Your task to perform on an android device: open app "Upside-Cash back on gas & food" (install if not already installed) Image 0: 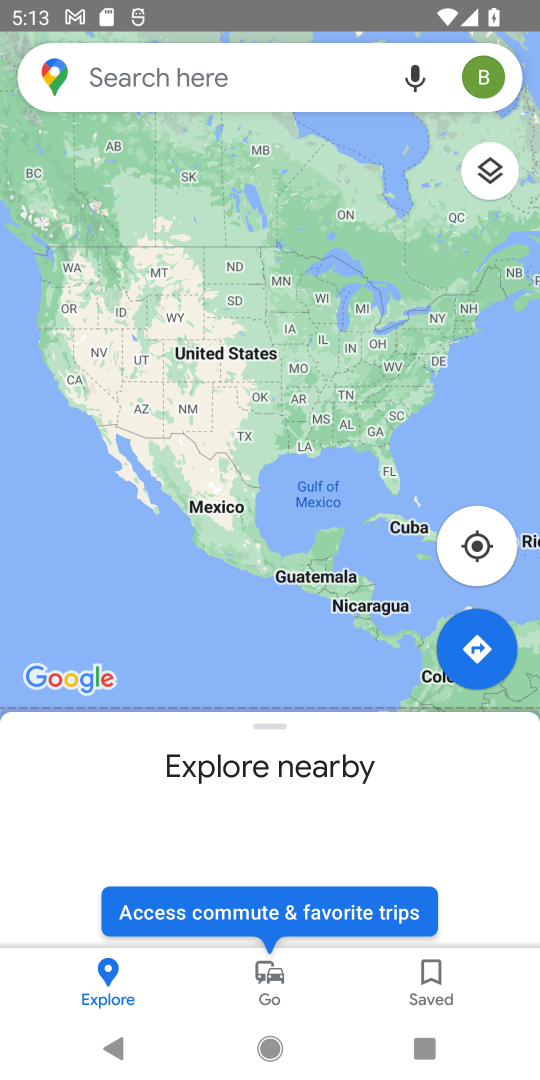
Step 0: press back button
Your task to perform on an android device: open app "Upside-Cash back on gas & food" (install if not already installed) Image 1: 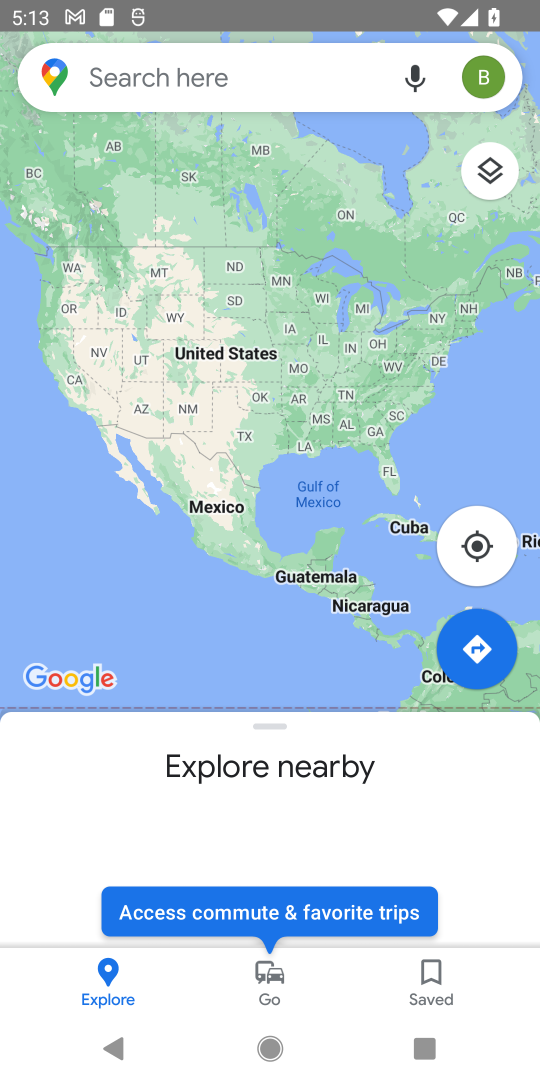
Step 1: press back button
Your task to perform on an android device: open app "Upside-Cash back on gas & food" (install if not already installed) Image 2: 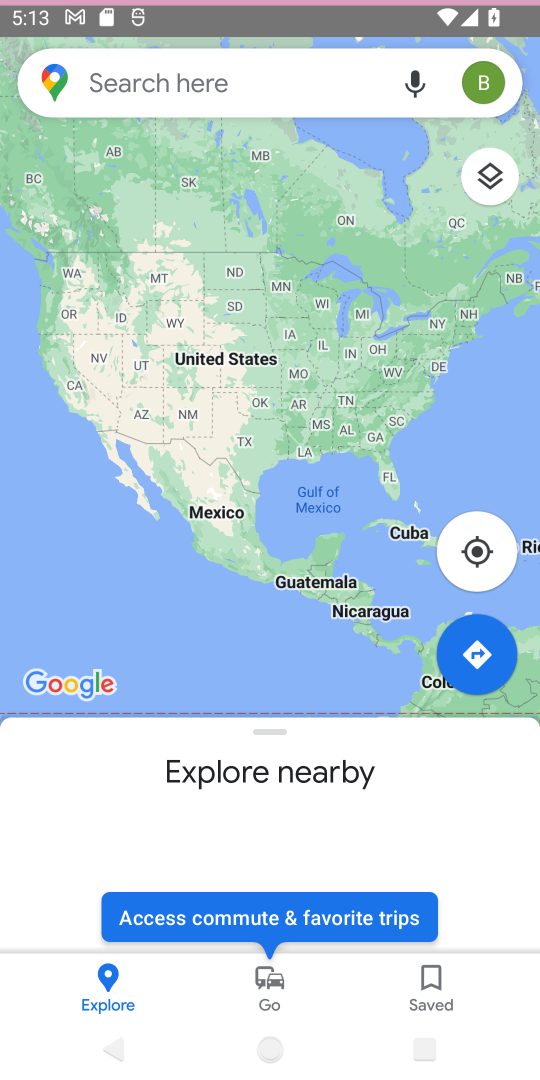
Step 2: press back button
Your task to perform on an android device: open app "Upside-Cash back on gas & food" (install if not already installed) Image 3: 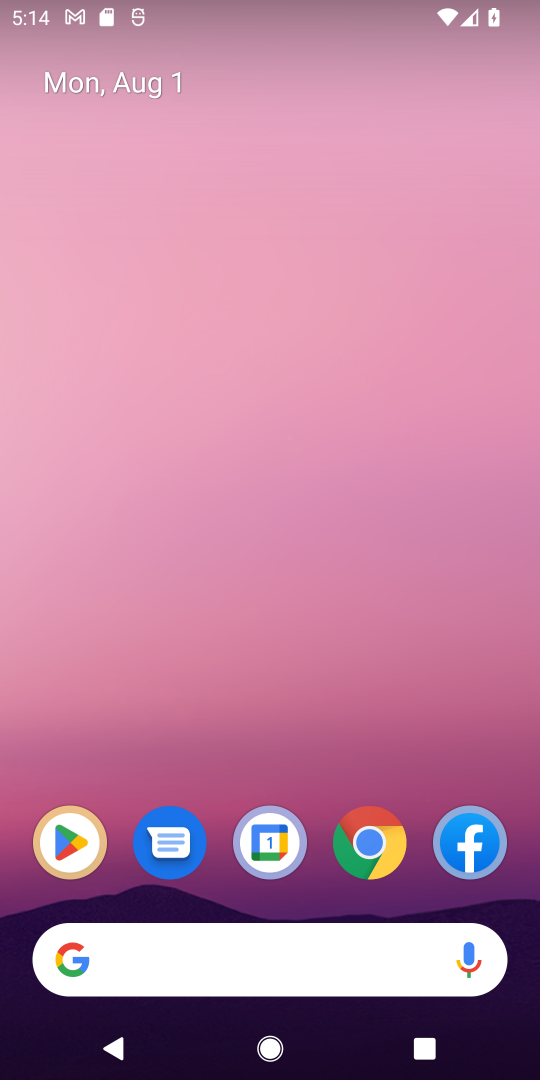
Step 3: drag from (327, 679) to (246, 378)
Your task to perform on an android device: open app "Upside-Cash back on gas & food" (install if not already installed) Image 4: 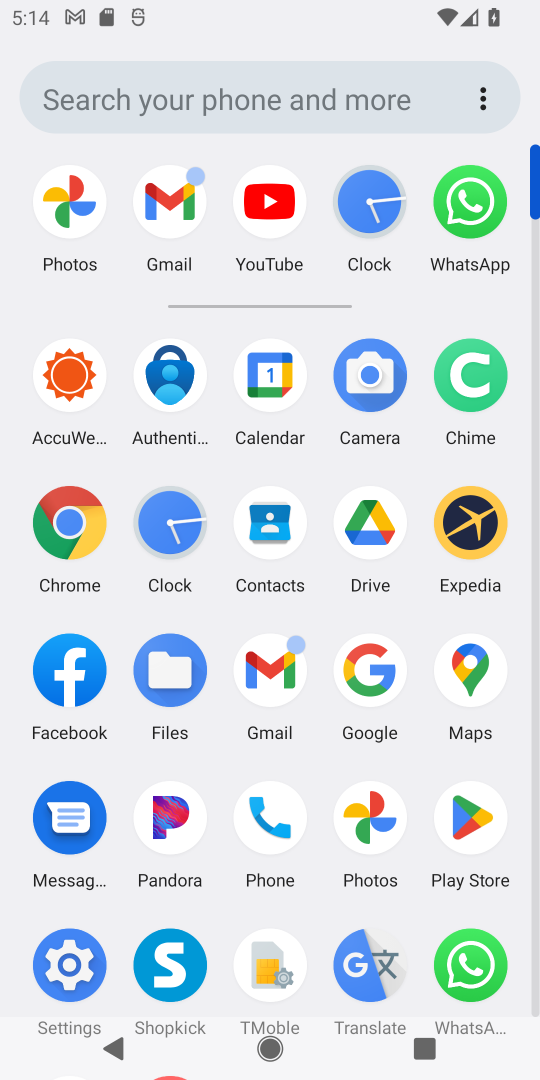
Step 4: click (420, 814)
Your task to perform on an android device: open app "Upside-Cash back on gas & food" (install if not already installed) Image 5: 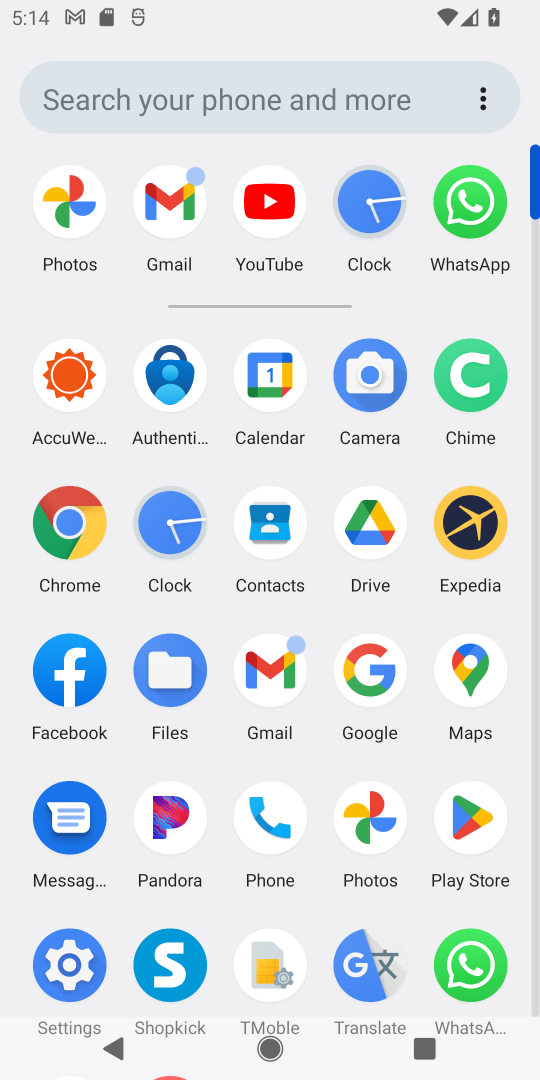
Step 5: click (464, 818)
Your task to perform on an android device: open app "Upside-Cash back on gas & food" (install if not already installed) Image 6: 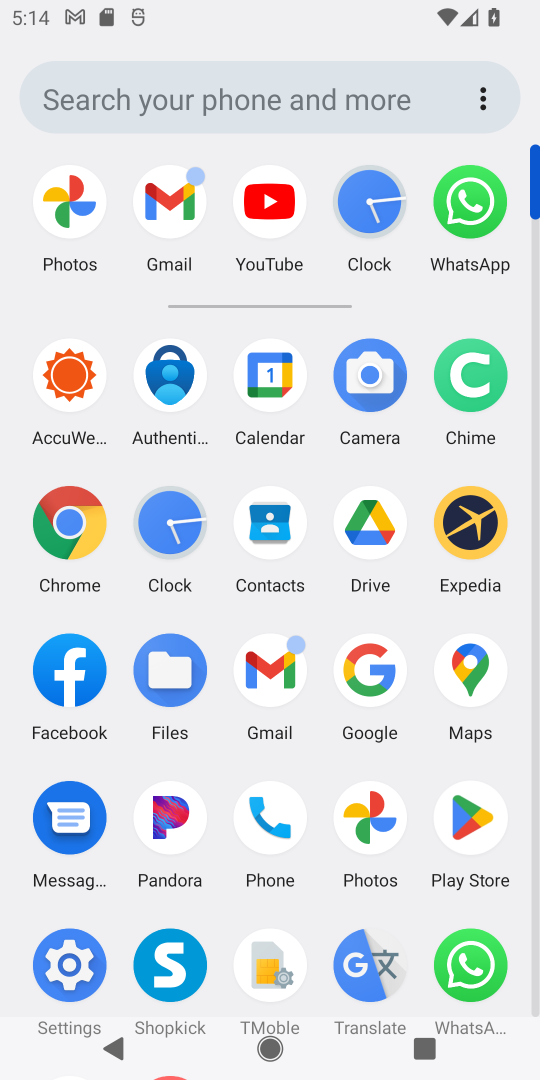
Step 6: click (468, 818)
Your task to perform on an android device: open app "Upside-Cash back on gas & food" (install if not already installed) Image 7: 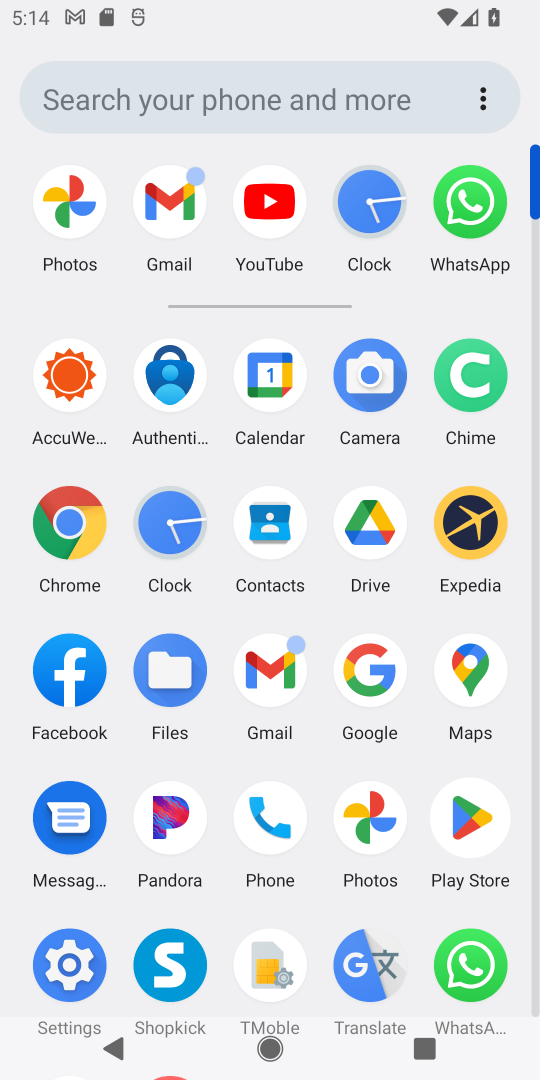
Step 7: click (469, 820)
Your task to perform on an android device: open app "Upside-Cash back on gas & food" (install if not already installed) Image 8: 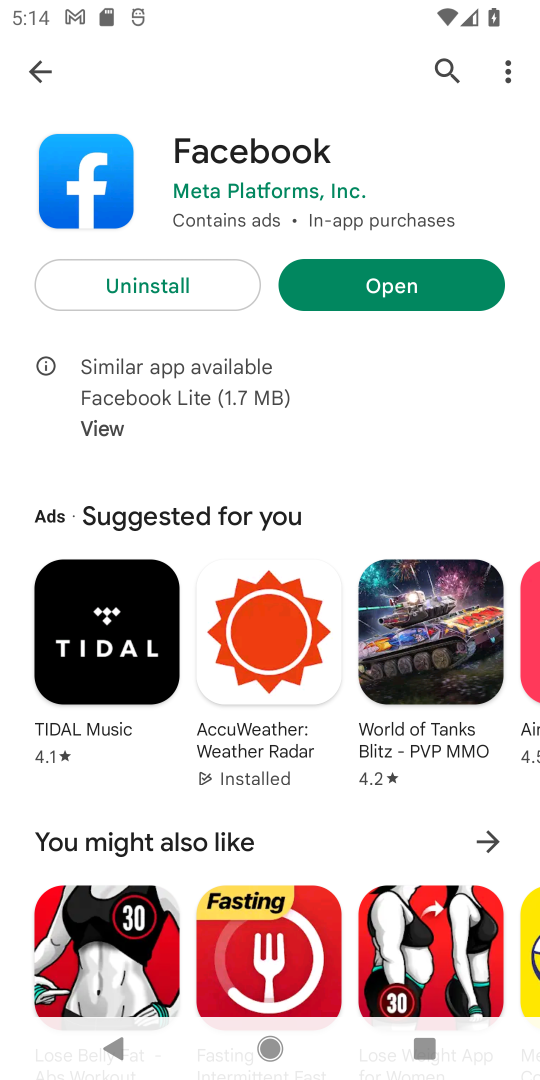
Step 8: click (48, 55)
Your task to perform on an android device: open app "Upside-Cash back on gas & food" (install if not already installed) Image 9: 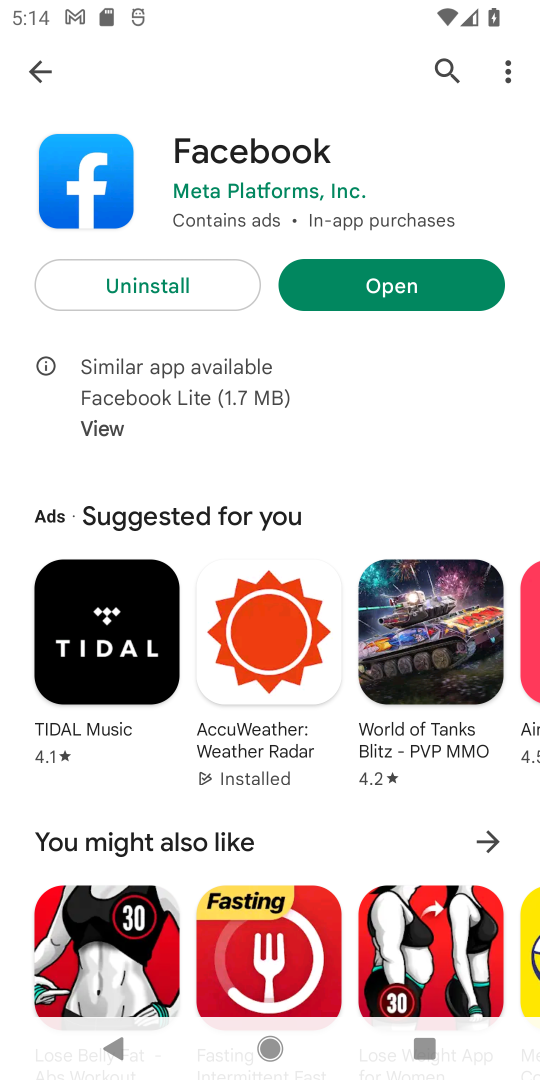
Step 9: click (41, 67)
Your task to perform on an android device: open app "Upside-Cash back on gas & food" (install if not already installed) Image 10: 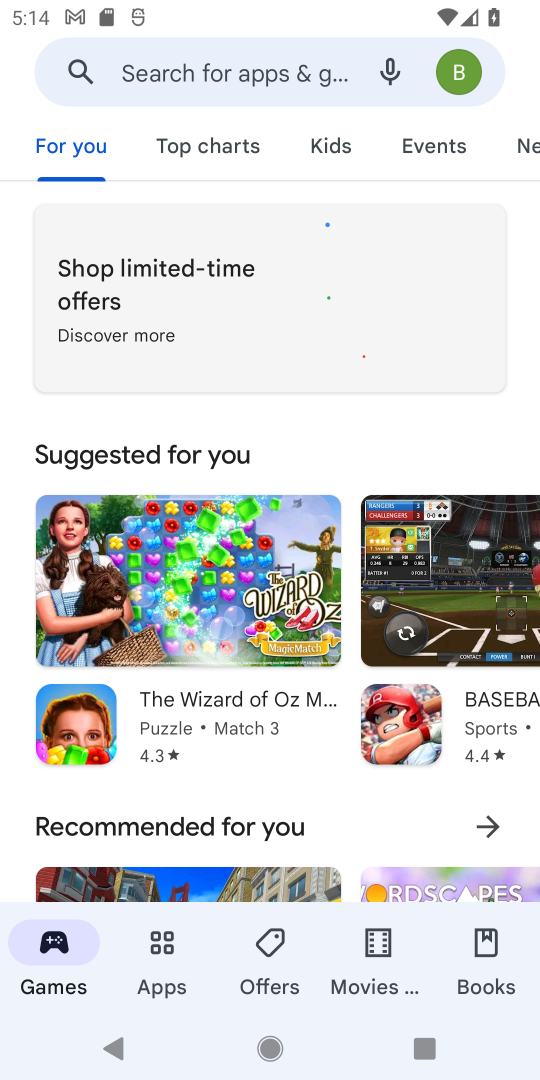
Step 10: click (145, 74)
Your task to perform on an android device: open app "Upside-Cash back on gas & food" (install if not already installed) Image 11: 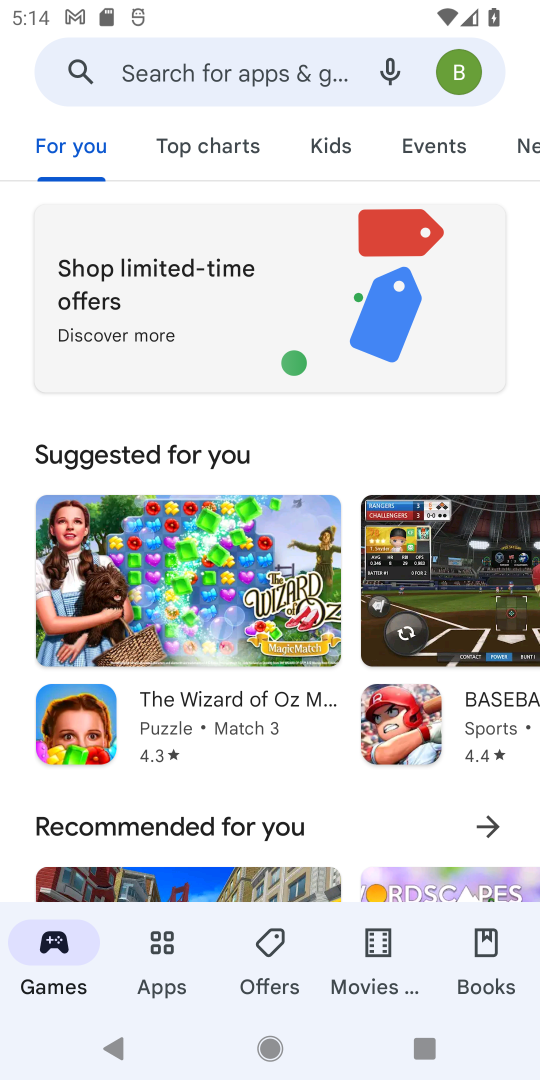
Step 11: click (155, 78)
Your task to perform on an android device: open app "Upside-Cash back on gas & food" (install if not already installed) Image 12: 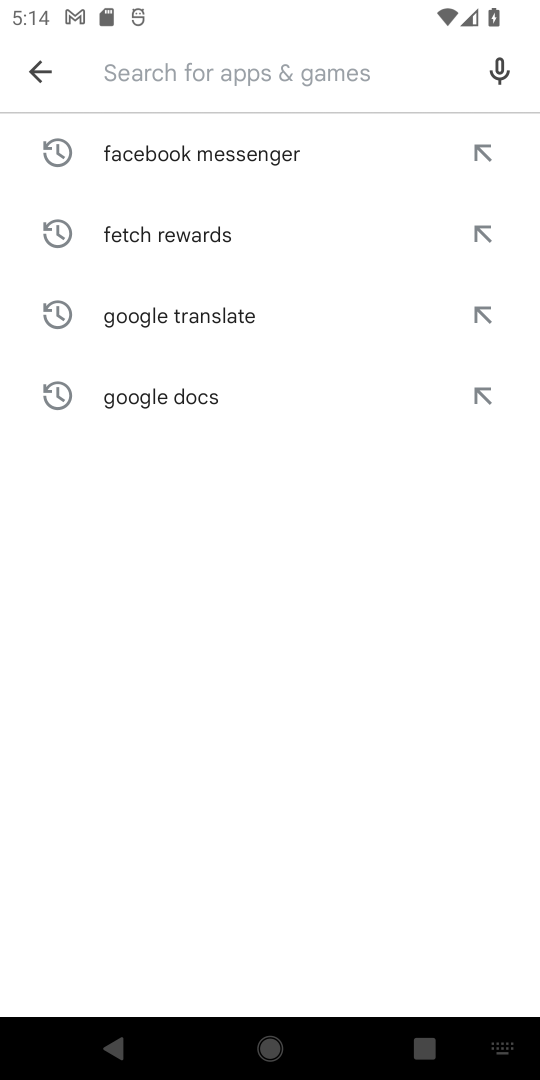
Step 12: type "Upside-Cash back on gas & food"
Your task to perform on an android device: open app "Upside-Cash back on gas & food" (install if not already installed) Image 13: 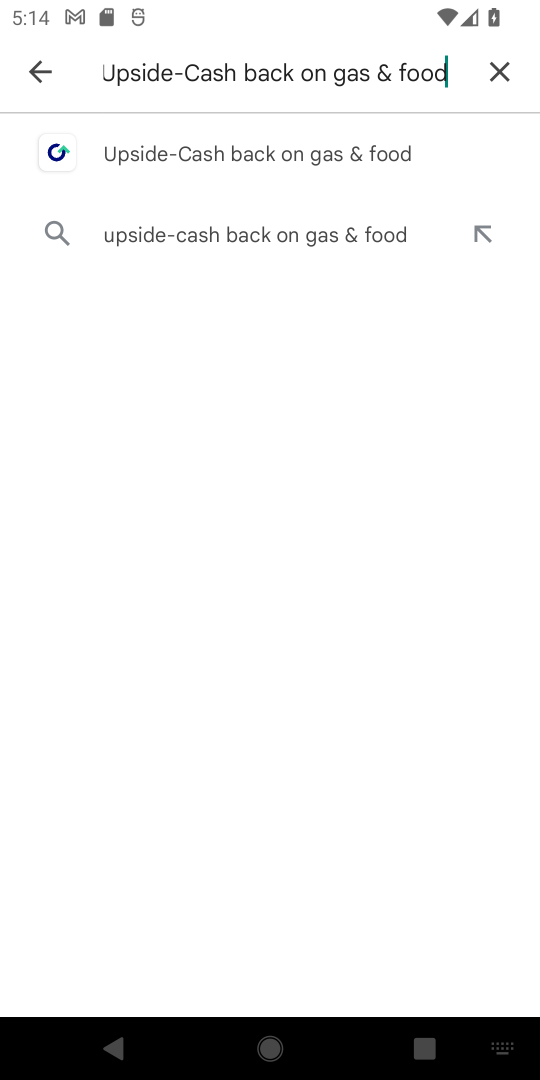
Step 13: click (473, 235)
Your task to perform on an android device: open app "Upside-Cash back on gas & food" (install if not already installed) Image 14: 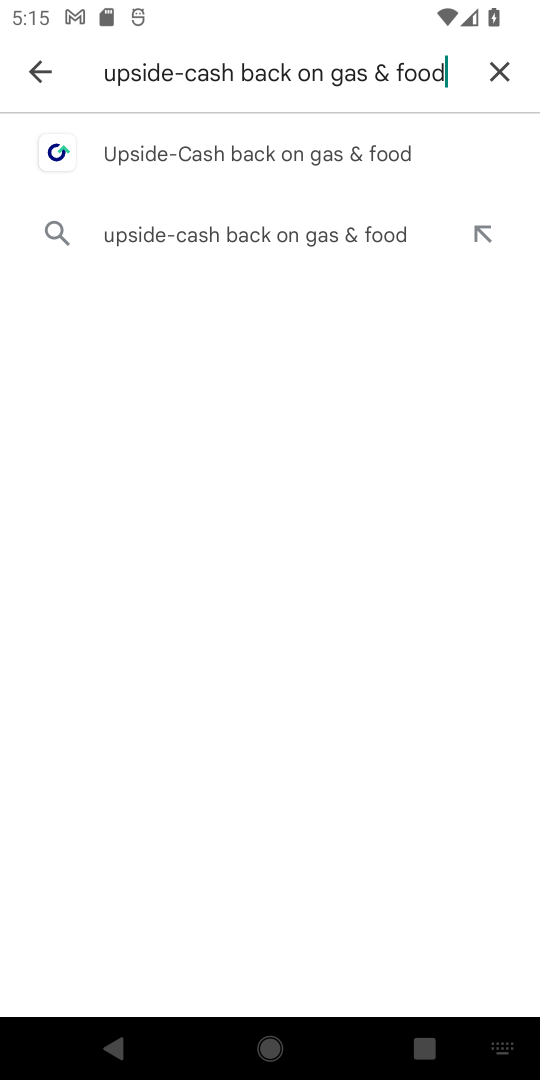
Step 14: click (473, 235)
Your task to perform on an android device: open app "Upside-Cash back on gas & food" (install if not already installed) Image 15: 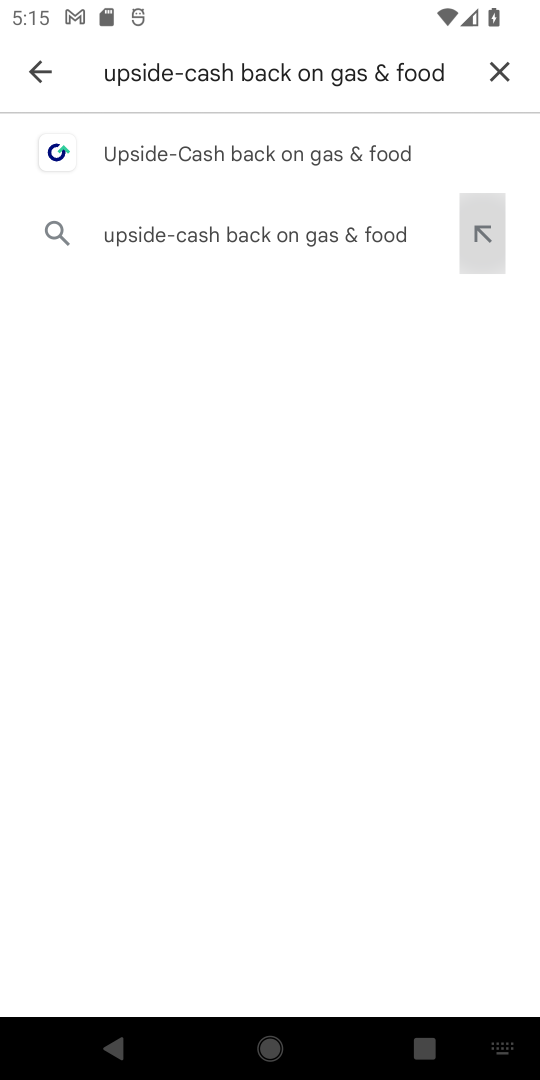
Step 15: click (473, 235)
Your task to perform on an android device: open app "Upside-Cash back on gas & food" (install if not already installed) Image 16: 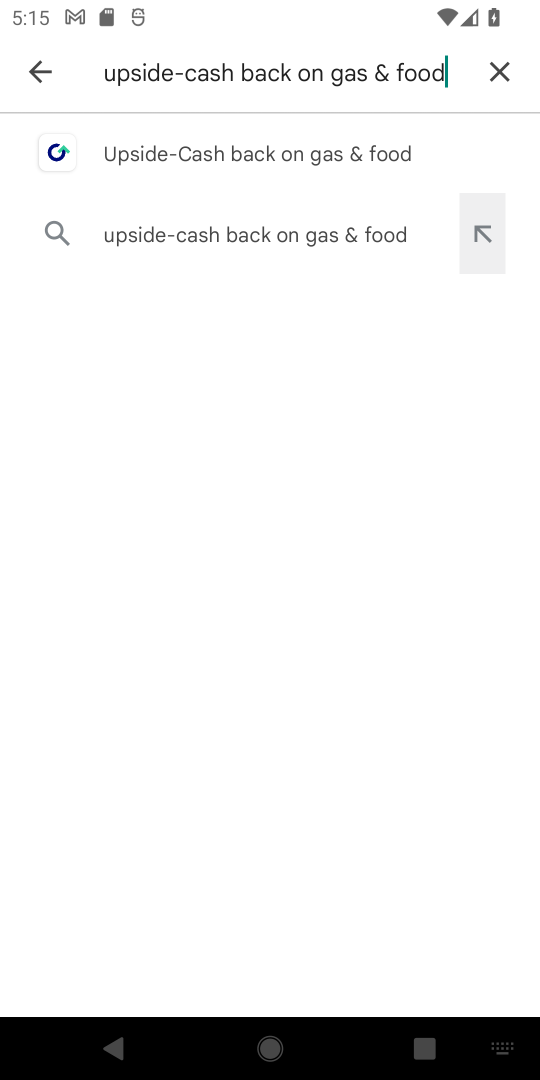
Step 16: click (473, 235)
Your task to perform on an android device: open app "Upside-Cash back on gas & food" (install if not already installed) Image 17: 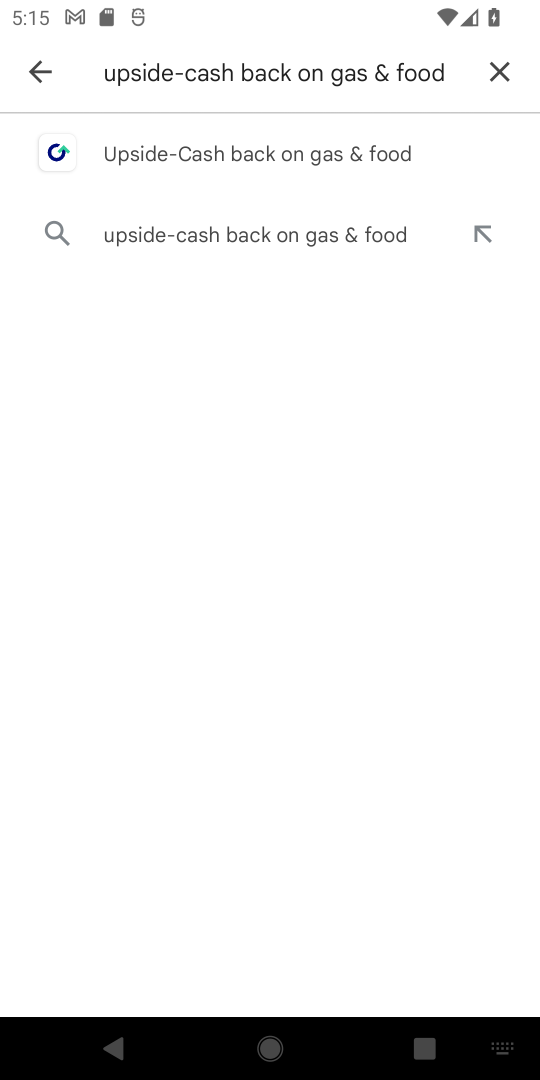
Step 17: click (200, 238)
Your task to perform on an android device: open app "Upside-Cash back on gas & food" (install if not already installed) Image 18: 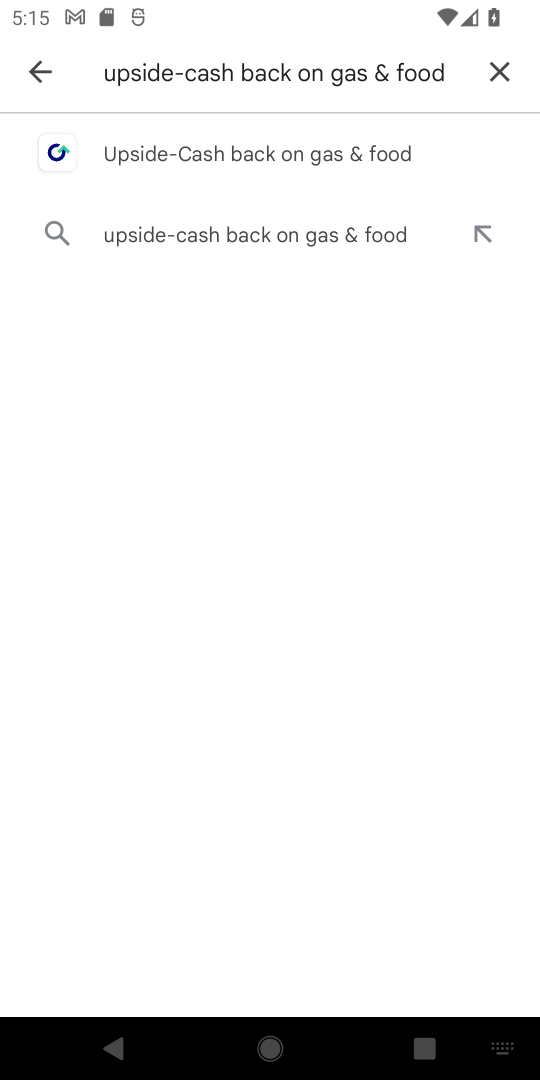
Step 18: click (200, 238)
Your task to perform on an android device: open app "Upside-Cash back on gas & food" (install if not already installed) Image 19: 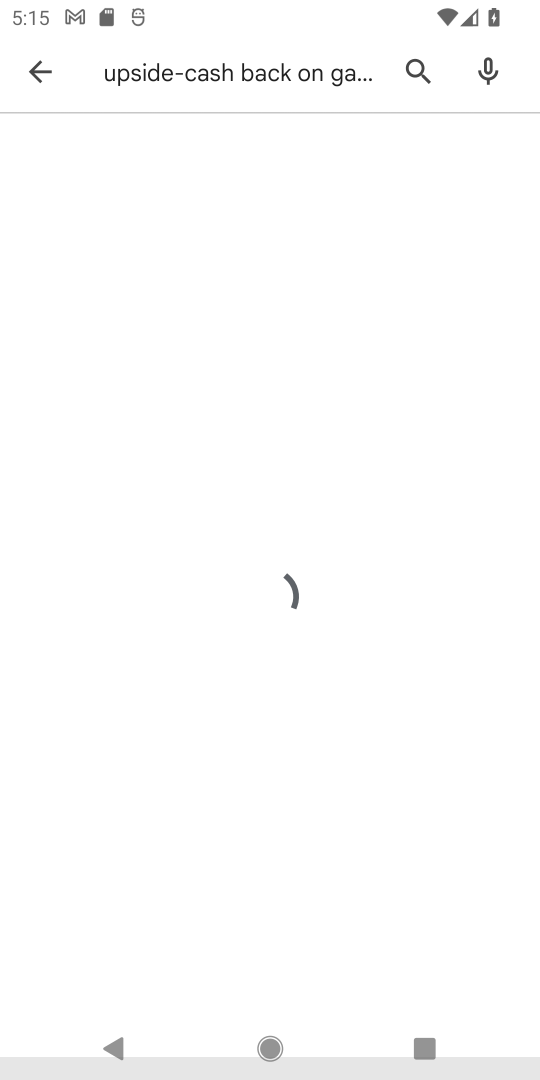
Step 19: click (200, 238)
Your task to perform on an android device: open app "Upside-Cash back on gas & food" (install if not already installed) Image 20: 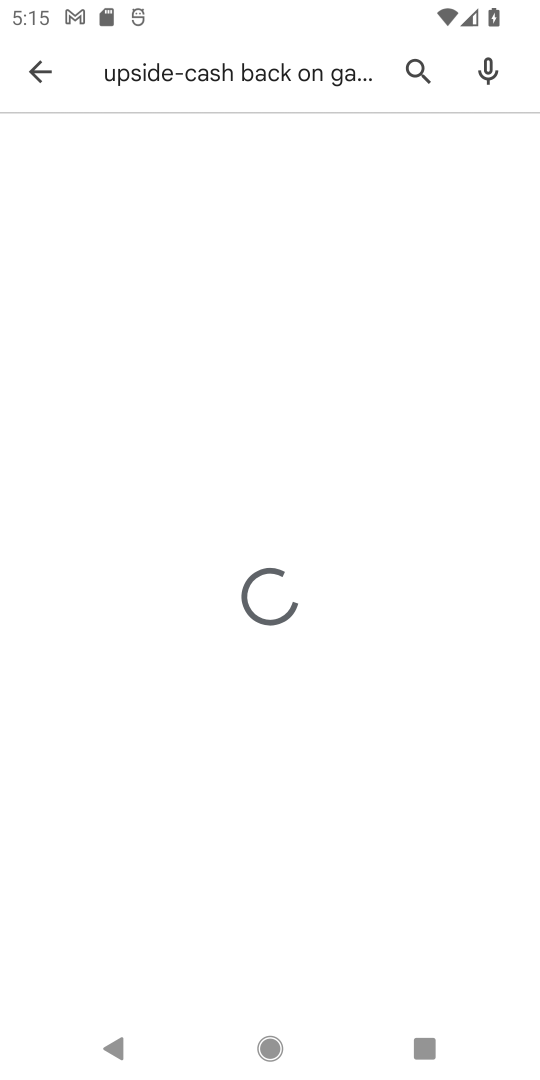
Step 20: click (200, 238)
Your task to perform on an android device: open app "Upside-Cash back on gas & food" (install if not already installed) Image 21: 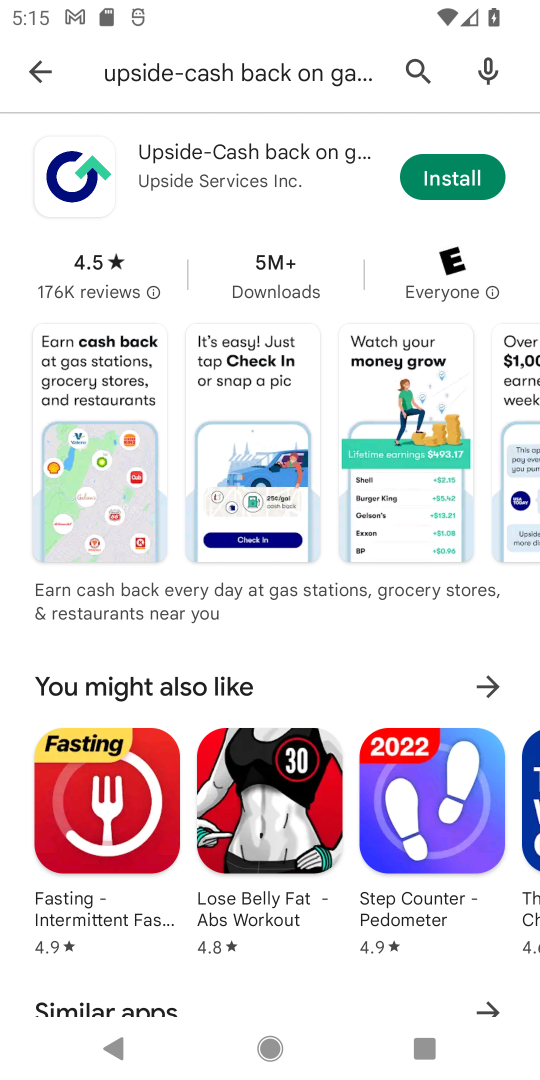
Step 21: click (441, 175)
Your task to perform on an android device: open app "Upside-Cash back on gas & food" (install if not already installed) Image 22: 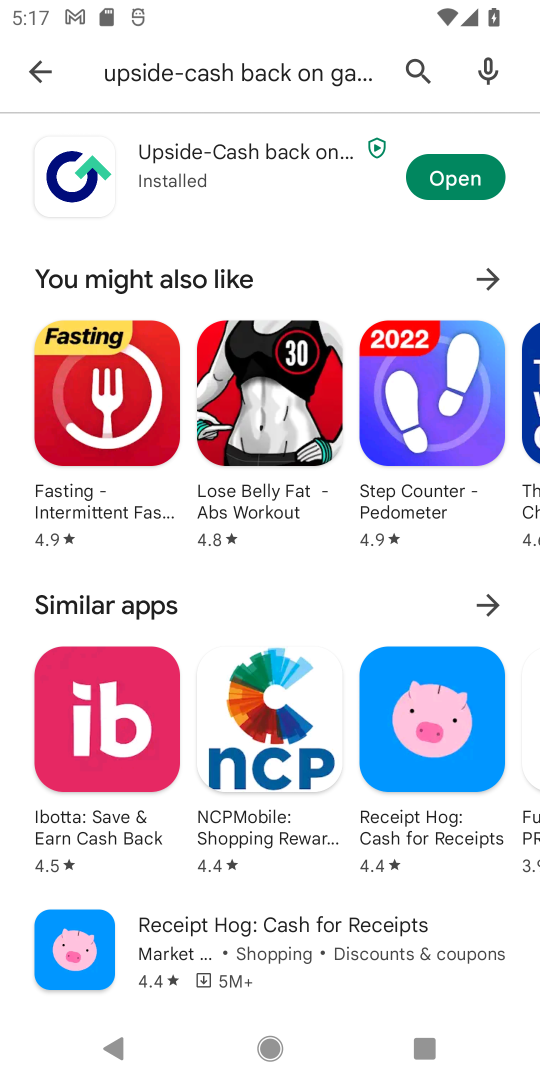
Step 22: click (429, 167)
Your task to perform on an android device: open app "Upside-Cash back on gas & food" (install if not already installed) Image 23: 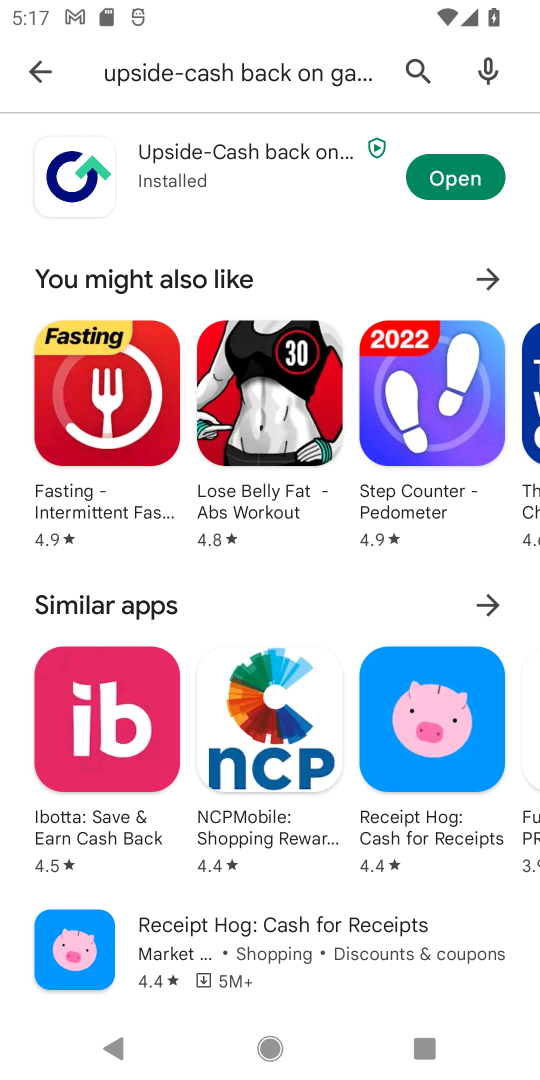
Step 23: click (423, 174)
Your task to perform on an android device: open app "Upside-Cash back on gas & food" (install if not already installed) Image 24: 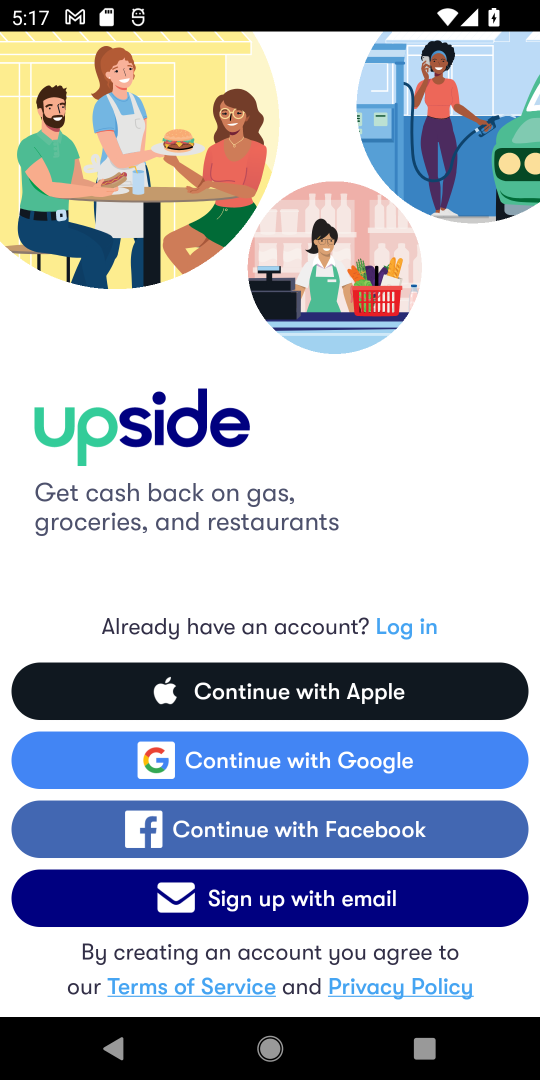
Step 24: task complete